Your task to perform on an android device: uninstall "ColorNote Notepad Notes" Image 0: 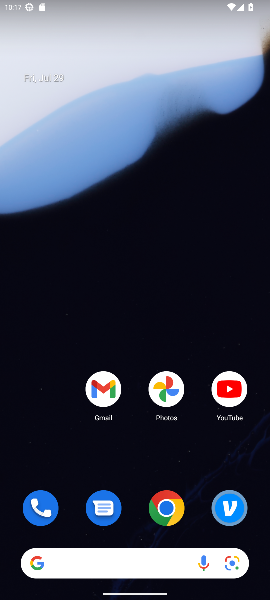
Step 0: drag from (158, 585) to (190, 6)
Your task to perform on an android device: uninstall "ColorNote Notepad Notes" Image 1: 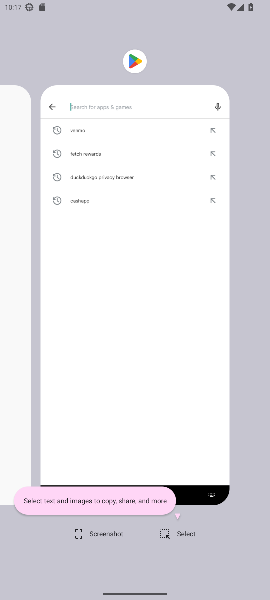
Step 1: click (155, 330)
Your task to perform on an android device: uninstall "ColorNote Notepad Notes" Image 2: 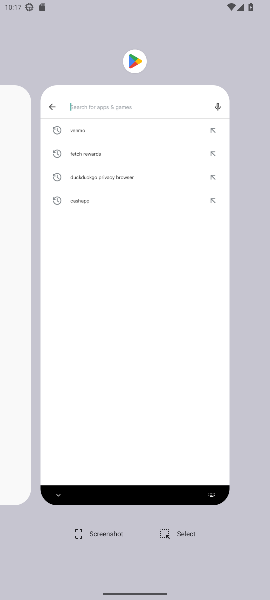
Step 2: click (156, 328)
Your task to perform on an android device: uninstall "ColorNote Notepad Notes" Image 3: 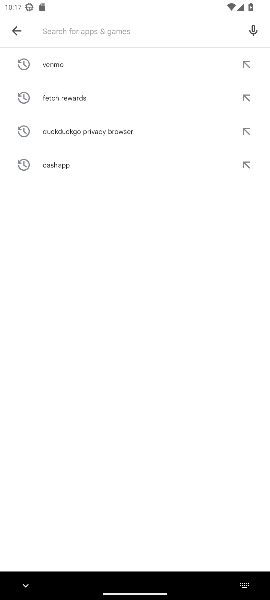
Step 3: click (105, 26)
Your task to perform on an android device: uninstall "ColorNote Notepad Notes" Image 4: 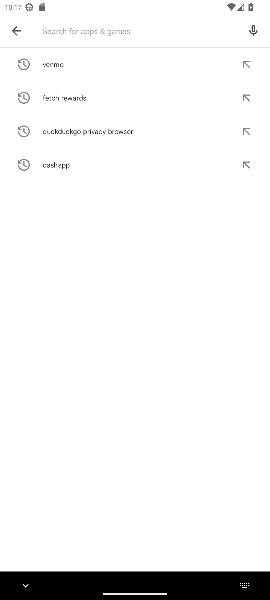
Step 4: type "colornote notepad notes"
Your task to perform on an android device: uninstall "ColorNote Notepad Notes" Image 5: 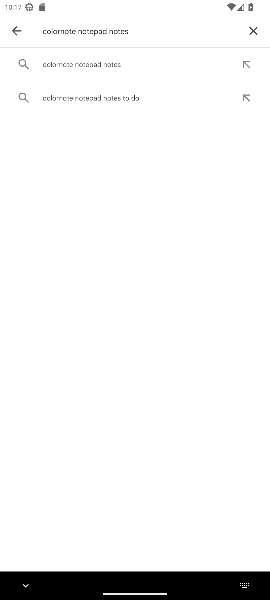
Step 5: click (122, 62)
Your task to perform on an android device: uninstall "ColorNote Notepad Notes" Image 6: 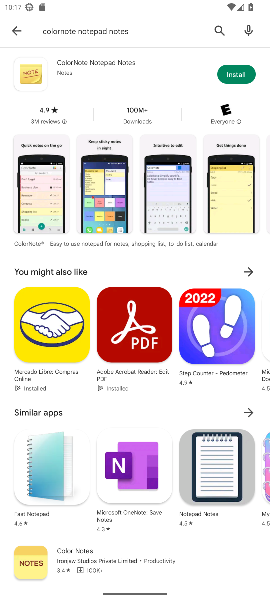
Step 6: task complete